Your task to perform on an android device: Open Reddit.com Image 0: 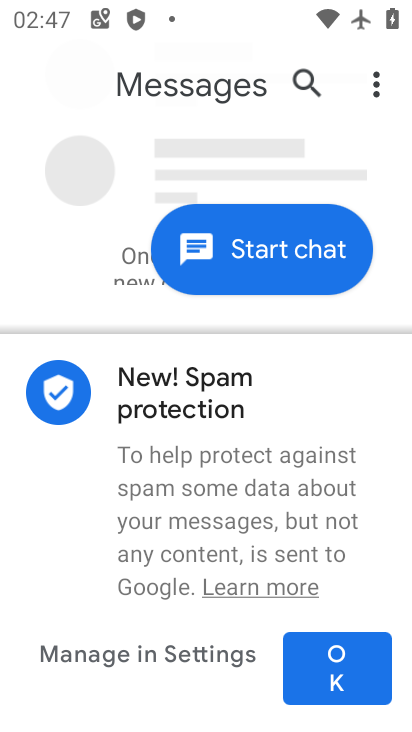
Step 0: press home button
Your task to perform on an android device: Open Reddit.com Image 1: 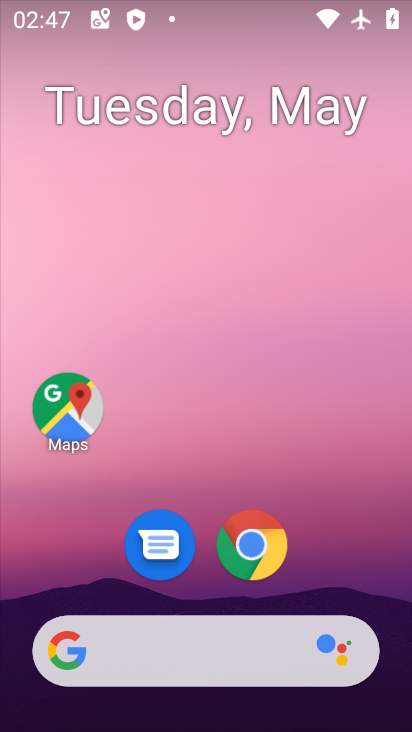
Step 1: click (254, 543)
Your task to perform on an android device: Open Reddit.com Image 2: 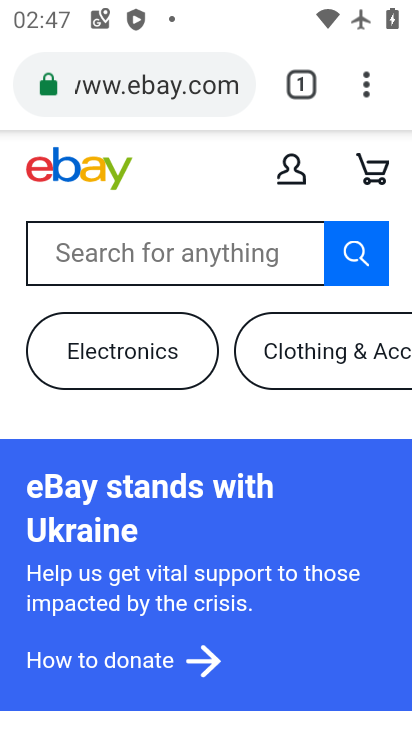
Step 2: click (206, 84)
Your task to perform on an android device: Open Reddit.com Image 3: 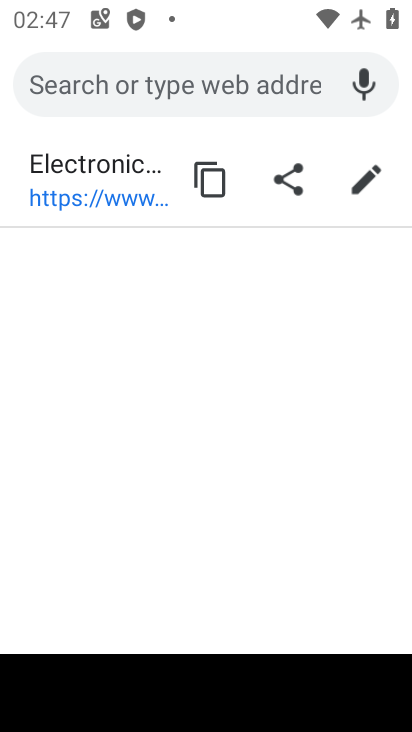
Step 3: type "reddit.com"
Your task to perform on an android device: Open Reddit.com Image 4: 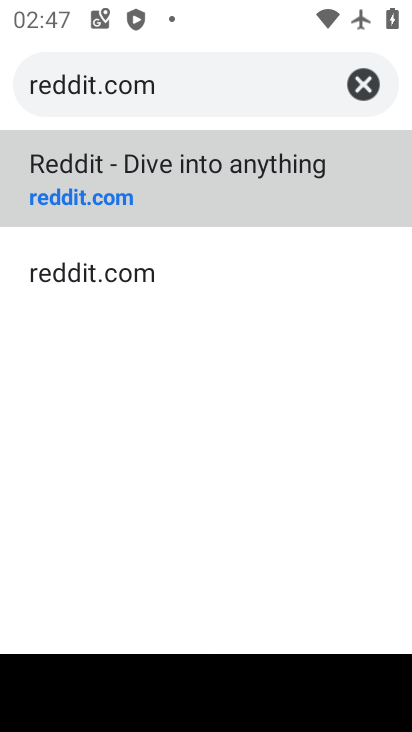
Step 4: click (88, 171)
Your task to perform on an android device: Open Reddit.com Image 5: 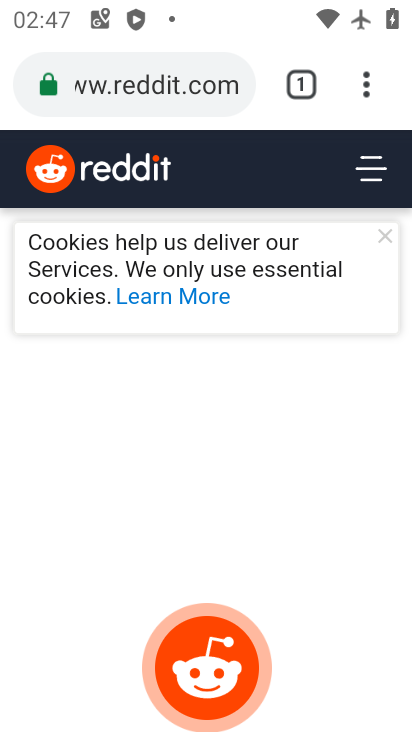
Step 5: task complete